Your task to perform on an android device: see creations saved in the google photos Image 0: 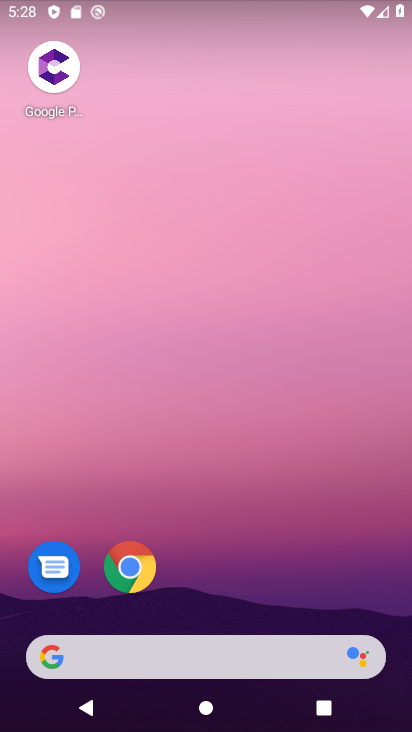
Step 0: drag from (293, 667) to (193, 235)
Your task to perform on an android device: see creations saved in the google photos Image 1: 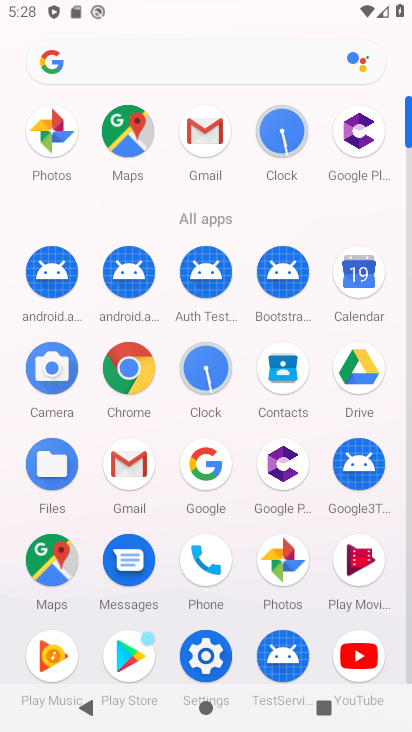
Step 1: click (290, 544)
Your task to perform on an android device: see creations saved in the google photos Image 2: 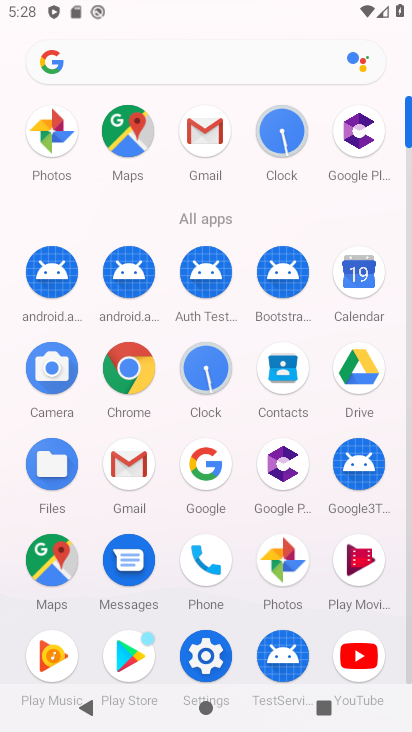
Step 2: click (291, 544)
Your task to perform on an android device: see creations saved in the google photos Image 3: 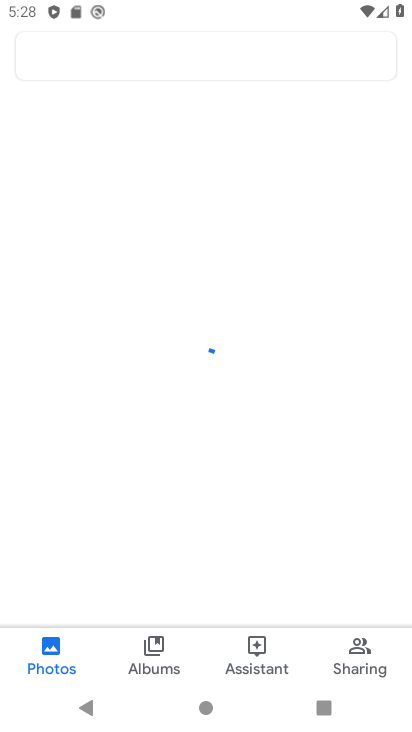
Step 3: drag from (229, 659) to (171, 155)
Your task to perform on an android device: see creations saved in the google photos Image 4: 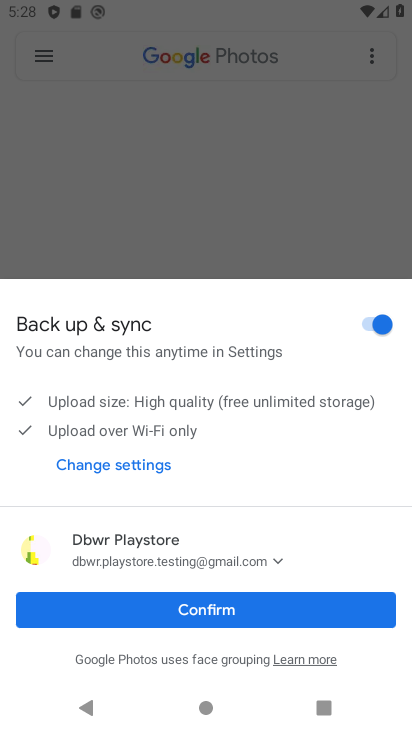
Step 4: click (225, 605)
Your task to perform on an android device: see creations saved in the google photos Image 5: 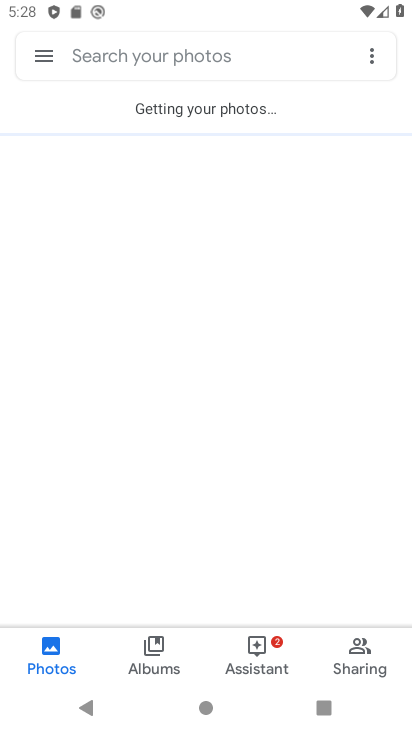
Step 5: task complete